Your task to perform on an android device: Show the shopping cart on target. Search for "duracell triple a" on target, select the first entry, and add it to the cart. Image 0: 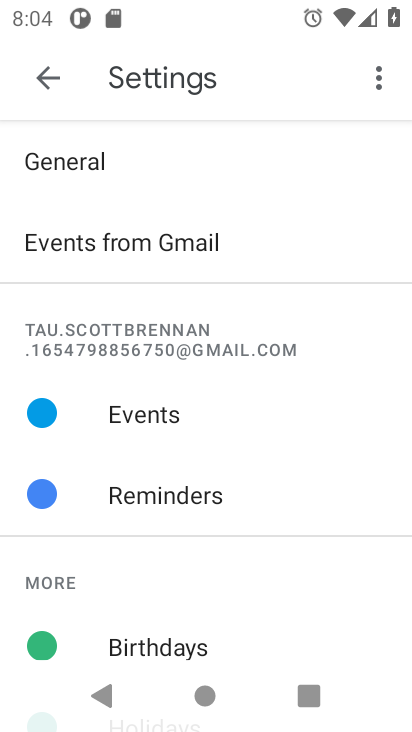
Step 0: press home button
Your task to perform on an android device: Show the shopping cart on target. Search for "duracell triple a" on target, select the first entry, and add it to the cart. Image 1: 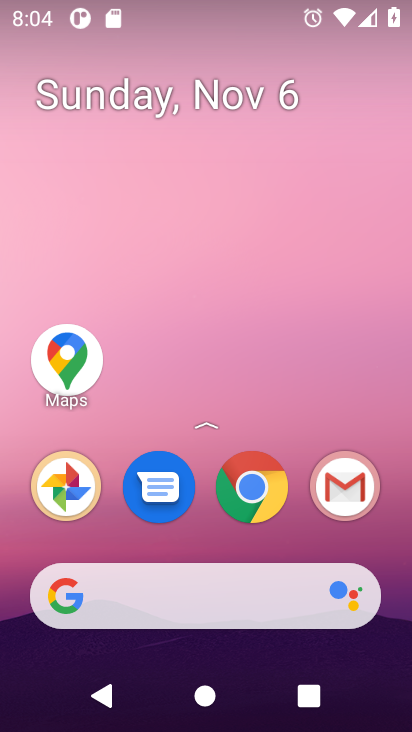
Step 1: click (258, 488)
Your task to perform on an android device: Show the shopping cart on target. Search for "duracell triple a" on target, select the first entry, and add it to the cart. Image 2: 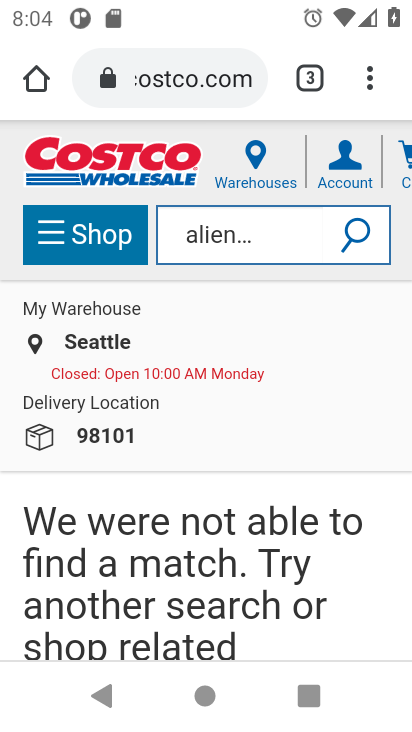
Step 2: click (137, 95)
Your task to perform on an android device: Show the shopping cart on target. Search for "duracell triple a" on target, select the first entry, and add it to the cart. Image 3: 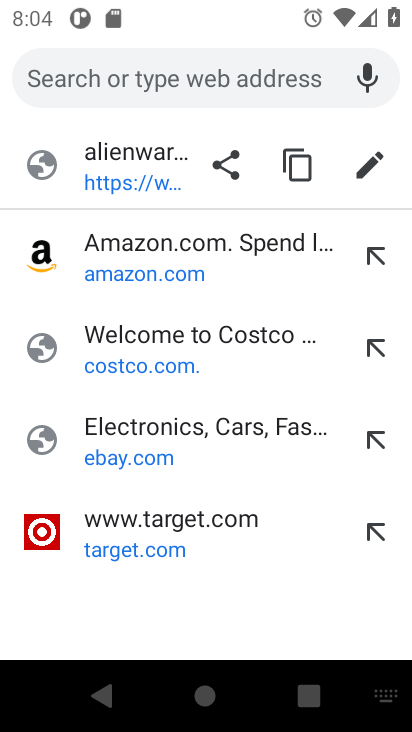
Step 3: click (184, 558)
Your task to perform on an android device: Show the shopping cart on target. Search for "duracell triple a" on target, select the first entry, and add it to the cart. Image 4: 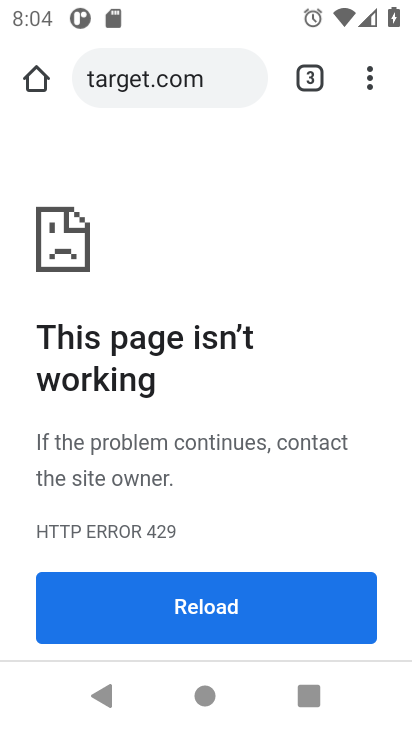
Step 4: click (211, 596)
Your task to perform on an android device: Show the shopping cart on target. Search for "duracell triple a" on target, select the first entry, and add it to the cart. Image 5: 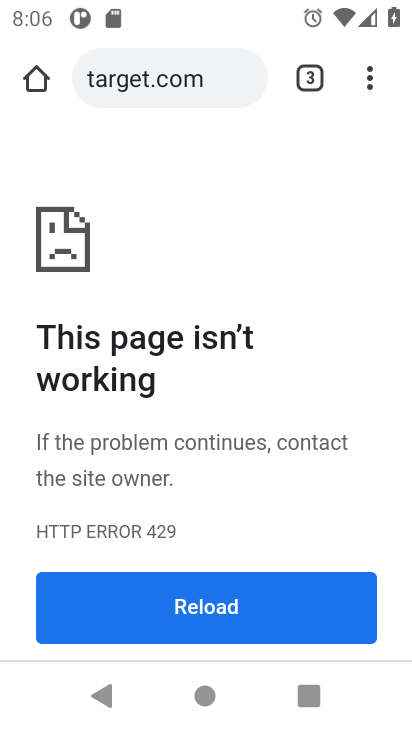
Step 5: task complete